Your task to perform on an android device: Open Chrome and go to settings Image 0: 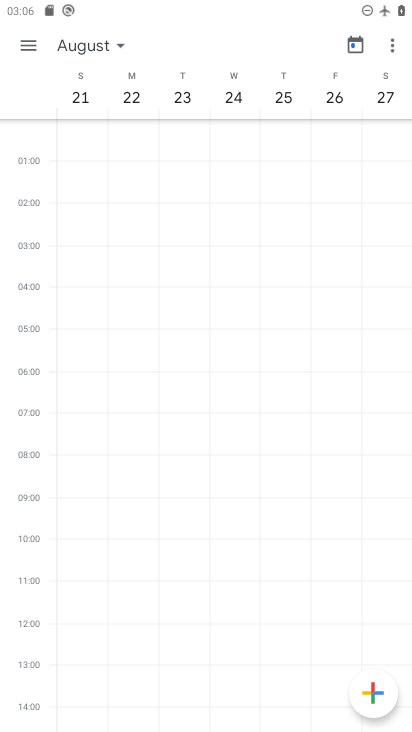
Step 0: press home button
Your task to perform on an android device: Open Chrome and go to settings Image 1: 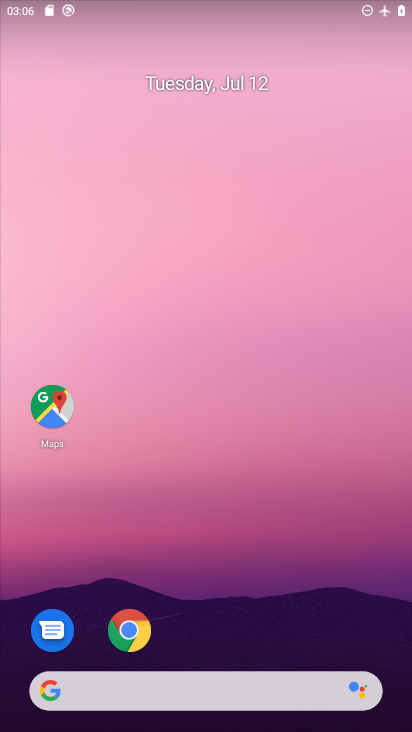
Step 1: click (122, 631)
Your task to perform on an android device: Open Chrome and go to settings Image 2: 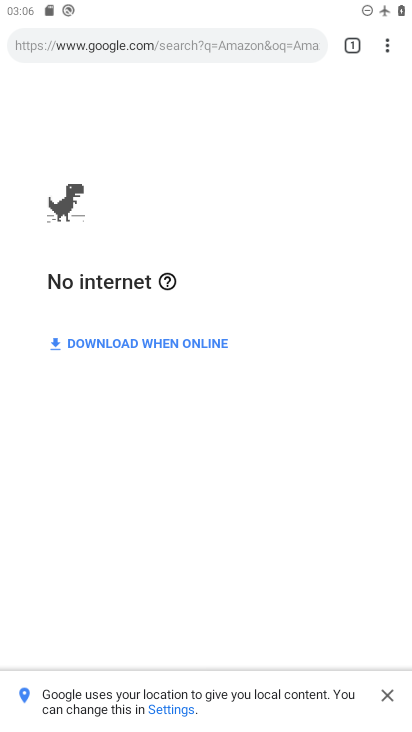
Step 2: click (384, 47)
Your task to perform on an android device: Open Chrome and go to settings Image 3: 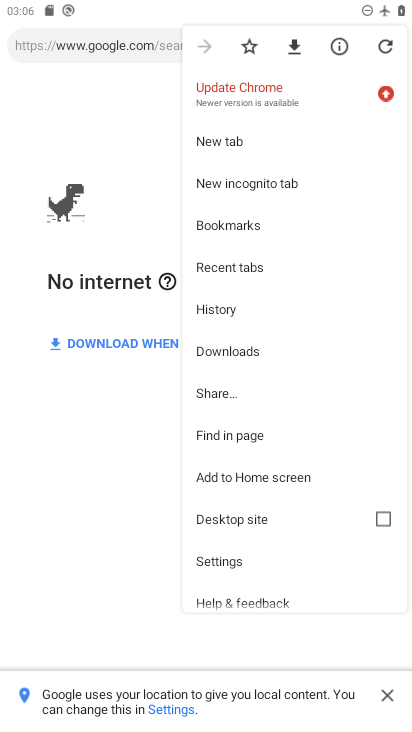
Step 3: click (228, 560)
Your task to perform on an android device: Open Chrome and go to settings Image 4: 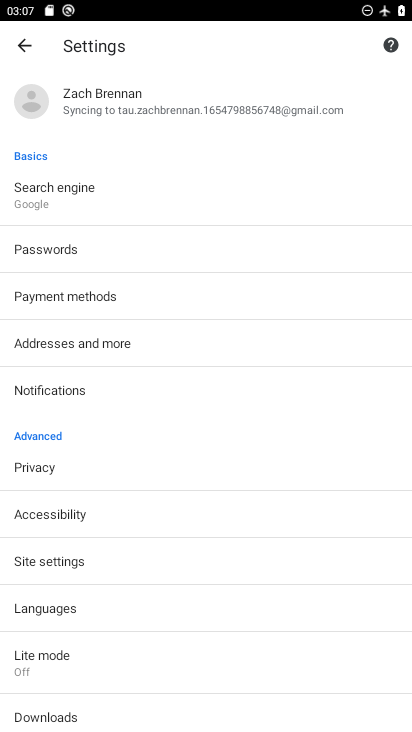
Step 4: task complete